Your task to perform on an android device: add a contact in the contacts app Image 0: 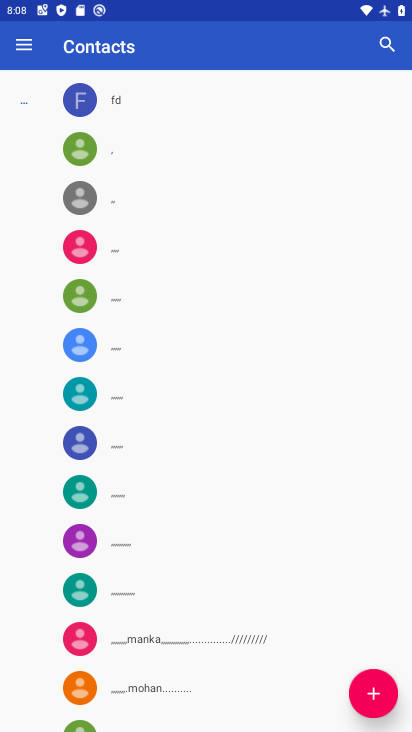
Step 0: click (374, 694)
Your task to perform on an android device: add a contact in the contacts app Image 1: 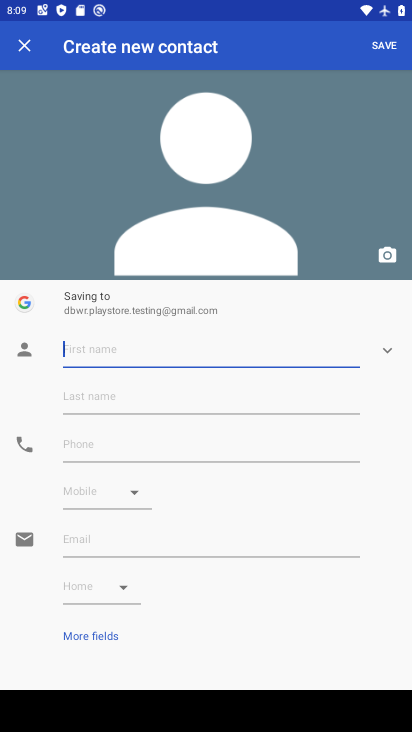
Step 1: type "tuffiksarhil"
Your task to perform on an android device: add a contact in the contacts app Image 2: 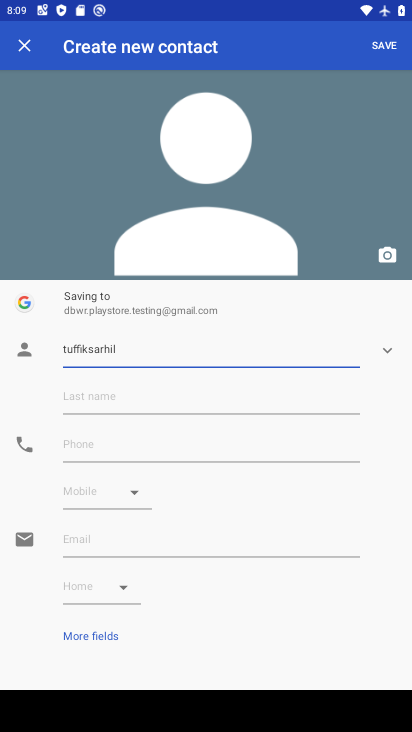
Step 2: click (104, 457)
Your task to perform on an android device: add a contact in the contacts app Image 3: 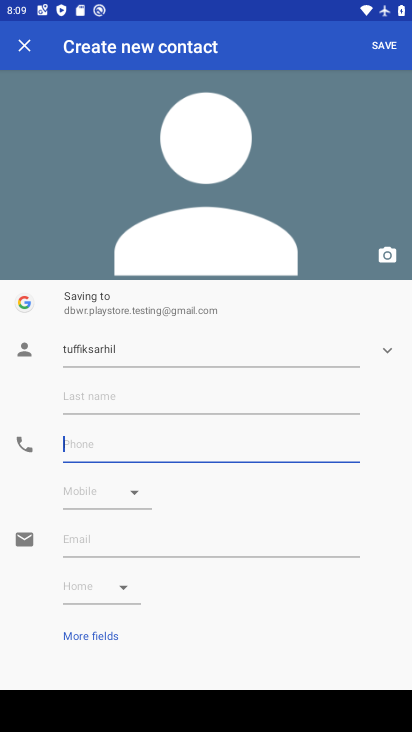
Step 3: type "9013275590"
Your task to perform on an android device: add a contact in the contacts app Image 4: 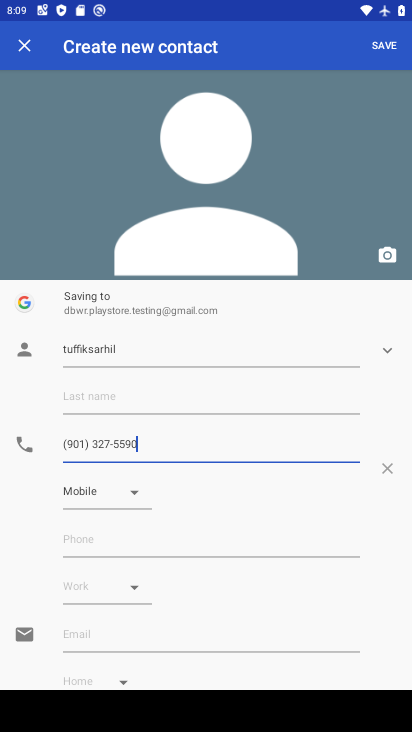
Step 4: click (134, 493)
Your task to perform on an android device: add a contact in the contacts app Image 5: 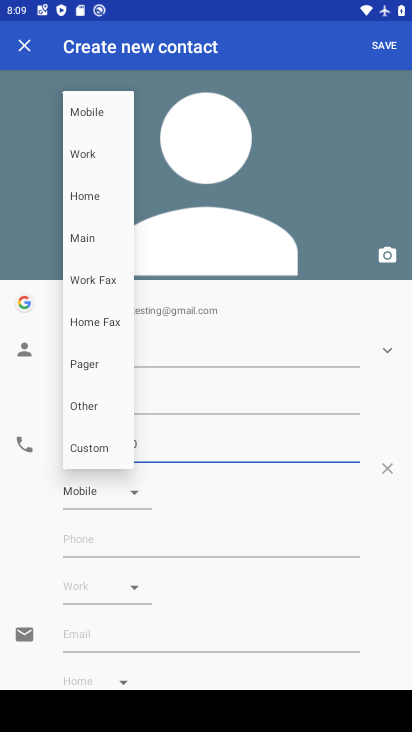
Step 5: click (78, 155)
Your task to perform on an android device: add a contact in the contacts app Image 6: 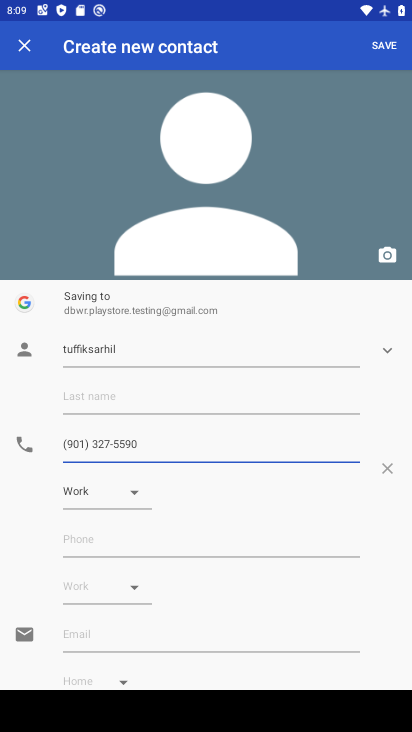
Step 6: click (390, 38)
Your task to perform on an android device: add a contact in the contacts app Image 7: 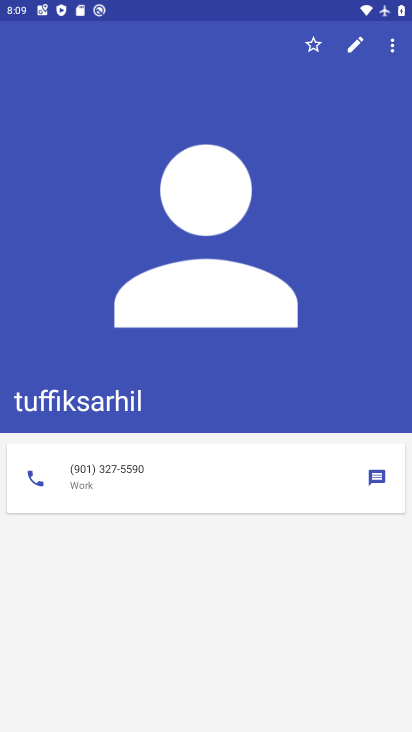
Step 7: task complete